Your task to perform on an android device: open sync settings in chrome Image 0: 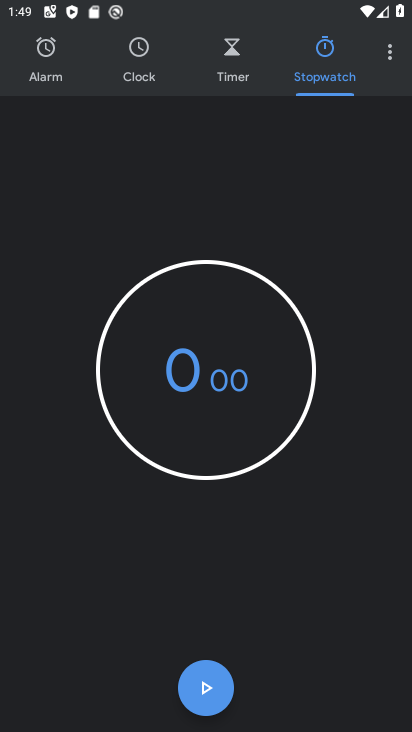
Step 0: press home button
Your task to perform on an android device: open sync settings in chrome Image 1: 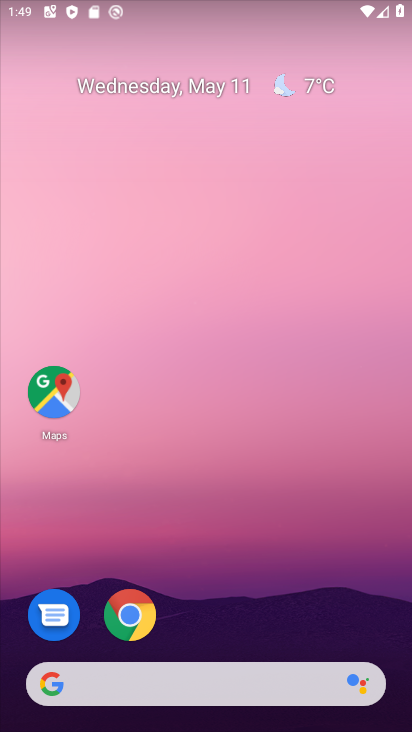
Step 1: click (135, 618)
Your task to perform on an android device: open sync settings in chrome Image 2: 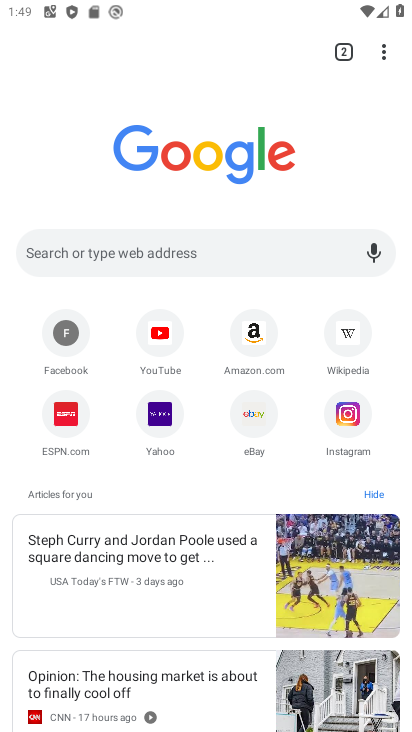
Step 2: drag from (387, 48) to (246, 426)
Your task to perform on an android device: open sync settings in chrome Image 3: 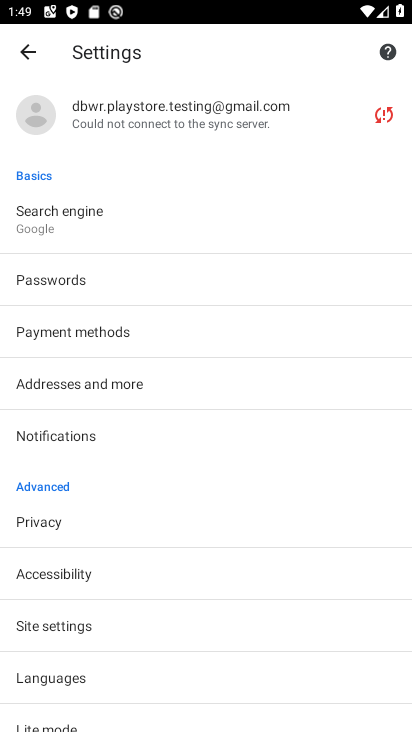
Step 3: click (150, 121)
Your task to perform on an android device: open sync settings in chrome Image 4: 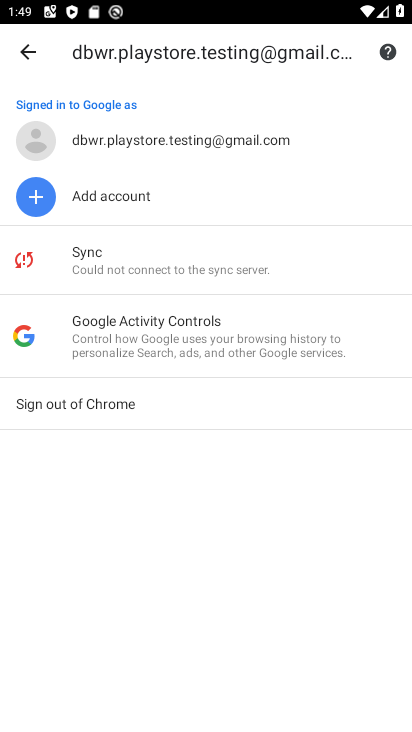
Step 4: click (158, 258)
Your task to perform on an android device: open sync settings in chrome Image 5: 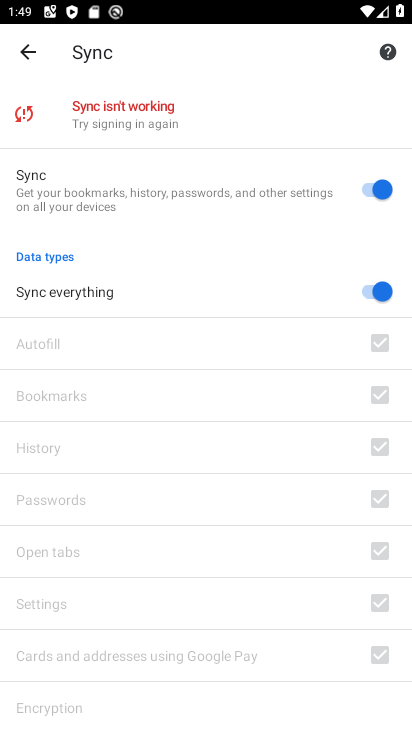
Step 5: task complete